Your task to perform on an android device: Open the calendar and show me this week's events? Image 0: 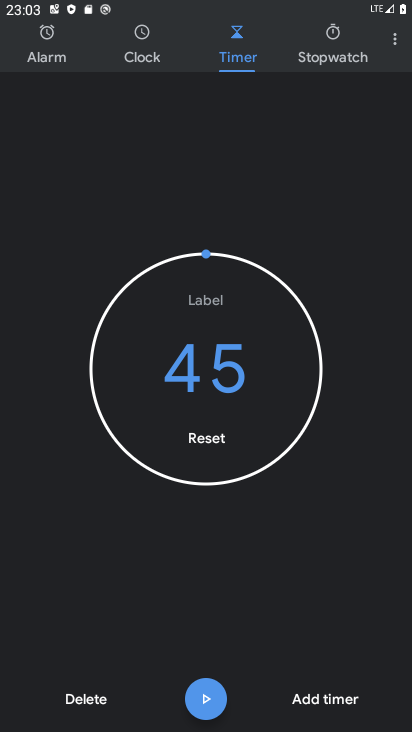
Step 0: press home button
Your task to perform on an android device: Open the calendar and show me this week's events? Image 1: 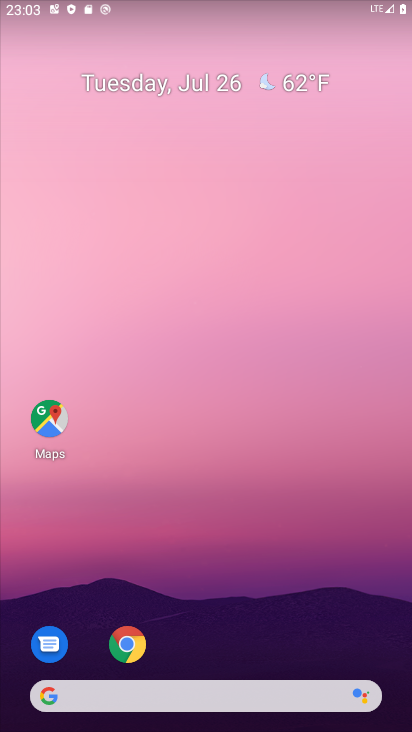
Step 1: drag from (260, 531) to (272, 67)
Your task to perform on an android device: Open the calendar and show me this week's events? Image 2: 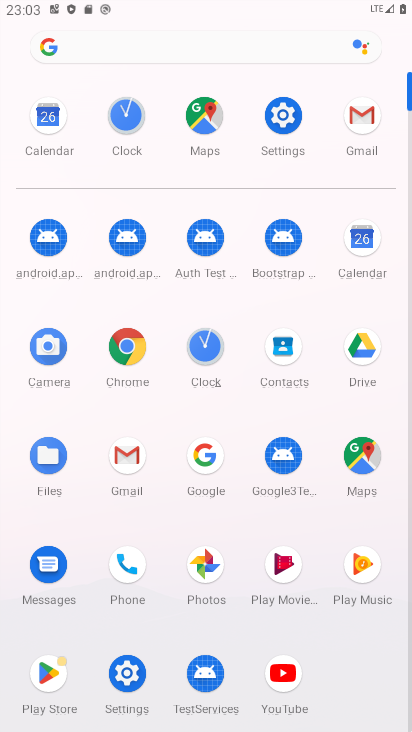
Step 2: click (380, 251)
Your task to perform on an android device: Open the calendar and show me this week's events? Image 3: 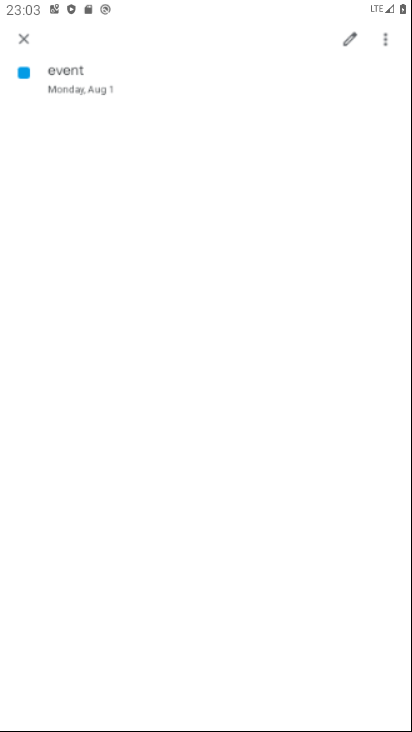
Step 3: click (27, 40)
Your task to perform on an android device: Open the calendar and show me this week's events? Image 4: 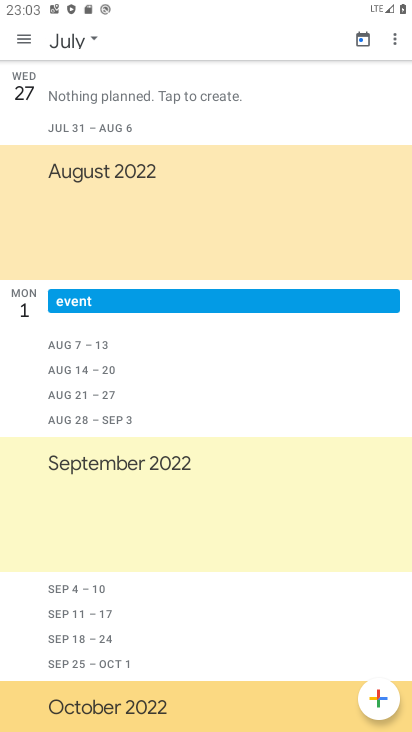
Step 4: click (26, 41)
Your task to perform on an android device: Open the calendar and show me this week's events? Image 5: 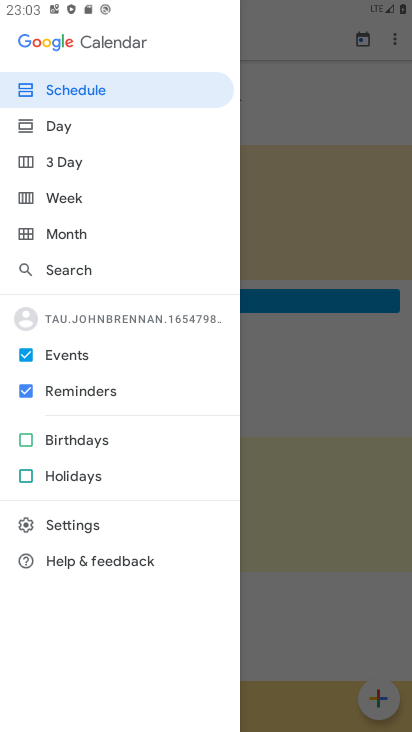
Step 5: click (31, 389)
Your task to perform on an android device: Open the calendar and show me this week's events? Image 6: 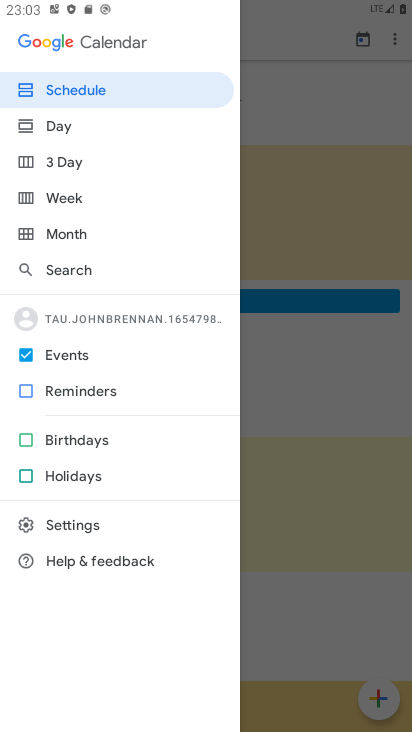
Step 6: click (28, 199)
Your task to perform on an android device: Open the calendar and show me this week's events? Image 7: 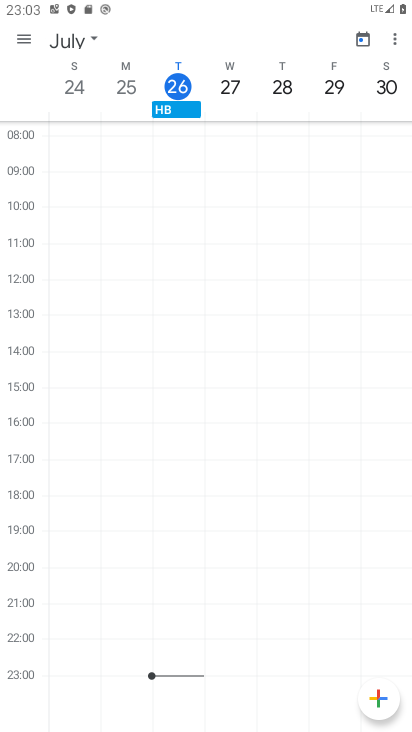
Step 7: task complete